Your task to perform on an android device: turn smart compose on in the gmail app Image 0: 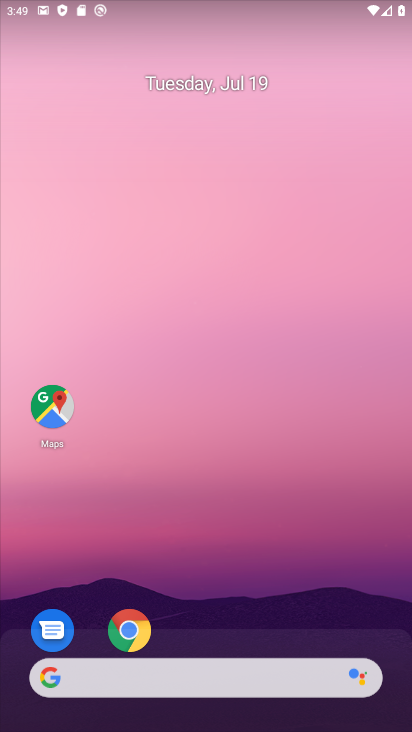
Step 0: drag from (350, 628) to (367, 90)
Your task to perform on an android device: turn smart compose on in the gmail app Image 1: 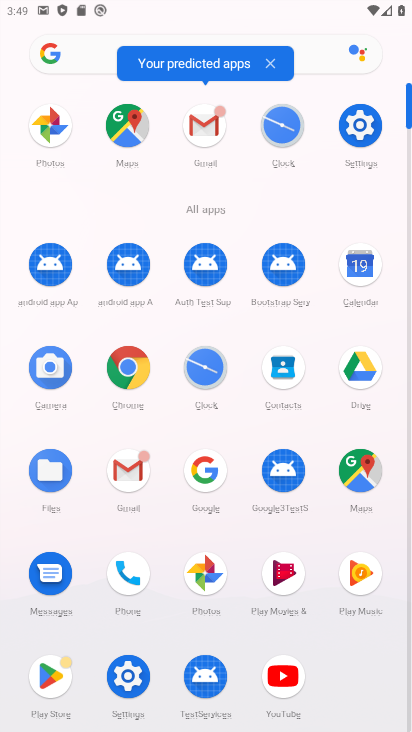
Step 1: click (209, 120)
Your task to perform on an android device: turn smart compose on in the gmail app Image 2: 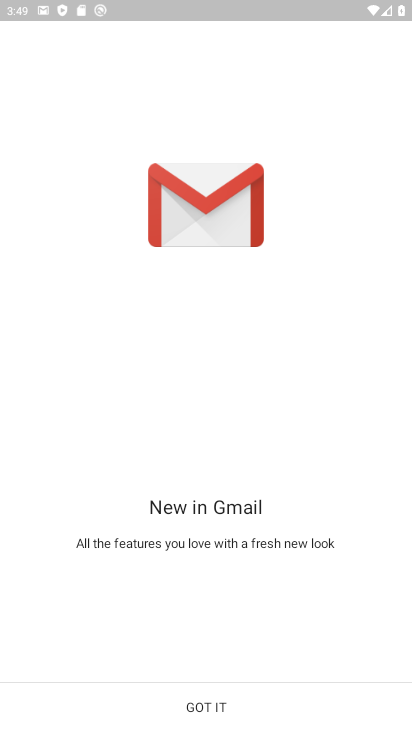
Step 2: click (201, 703)
Your task to perform on an android device: turn smart compose on in the gmail app Image 3: 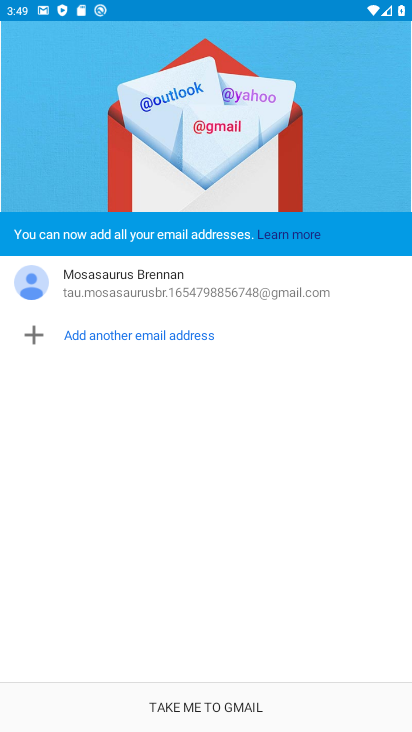
Step 3: click (201, 703)
Your task to perform on an android device: turn smart compose on in the gmail app Image 4: 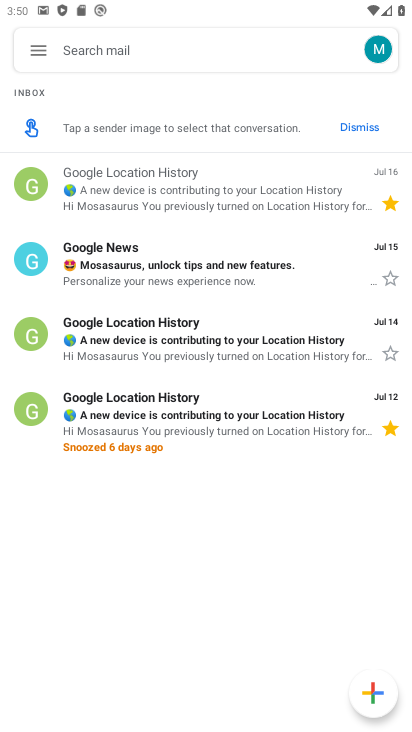
Step 4: click (42, 46)
Your task to perform on an android device: turn smart compose on in the gmail app Image 5: 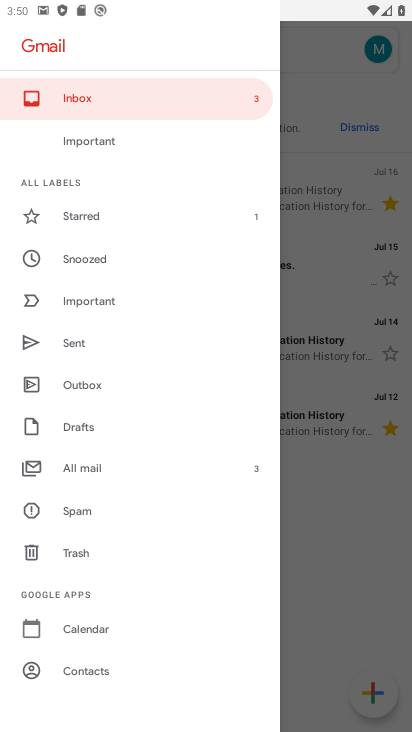
Step 5: drag from (175, 553) to (182, 382)
Your task to perform on an android device: turn smart compose on in the gmail app Image 6: 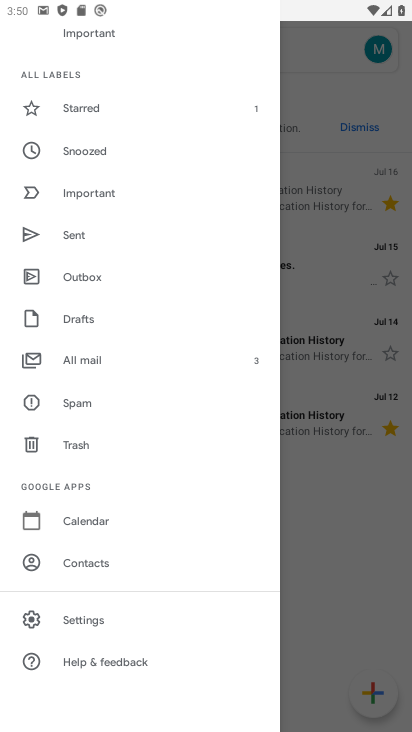
Step 6: click (94, 626)
Your task to perform on an android device: turn smart compose on in the gmail app Image 7: 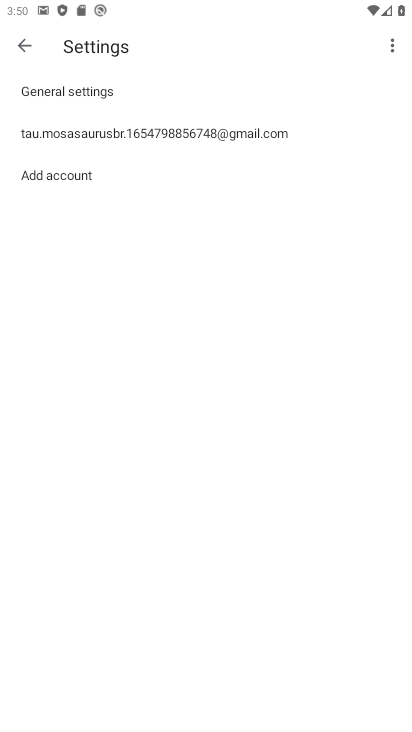
Step 7: click (266, 130)
Your task to perform on an android device: turn smart compose on in the gmail app Image 8: 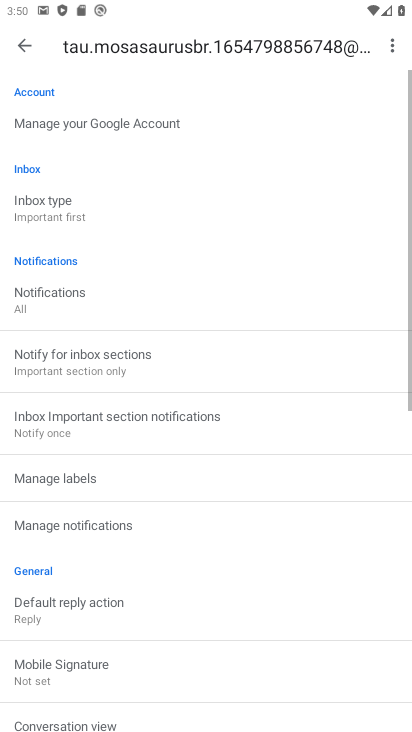
Step 8: task complete